Your task to perform on an android device: View the shopping cart on amazon.com. Add "dell xps" to the cart on amazon.com Image 0: 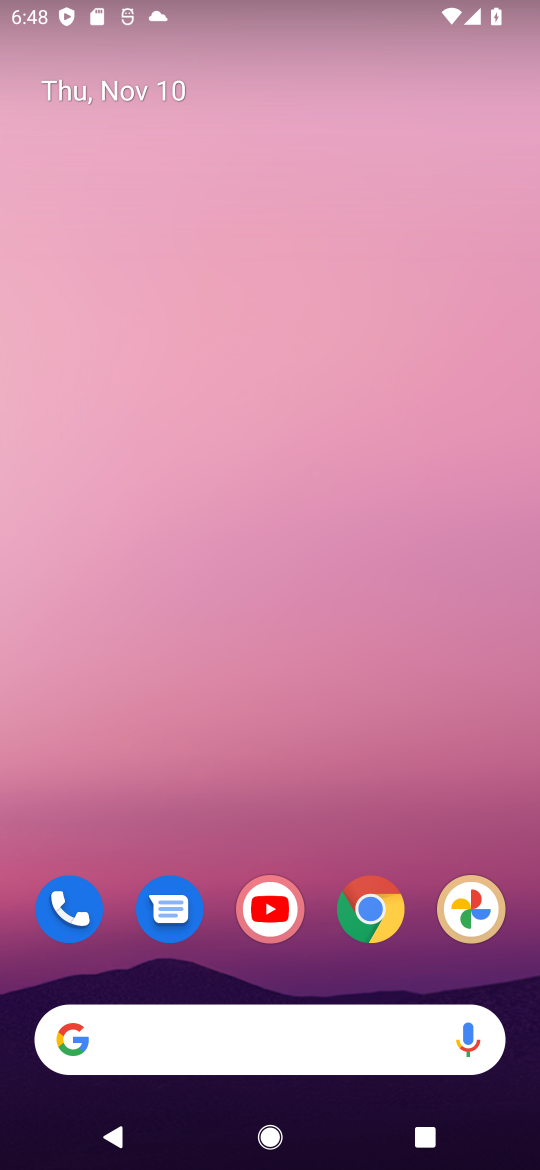
Step 0: drag from (254, 986) to (237, 60)
Your task to perform on an android device: View the shopping cart on amazon.com. Add "dell xps" to the cart on amazon.com Image 1: 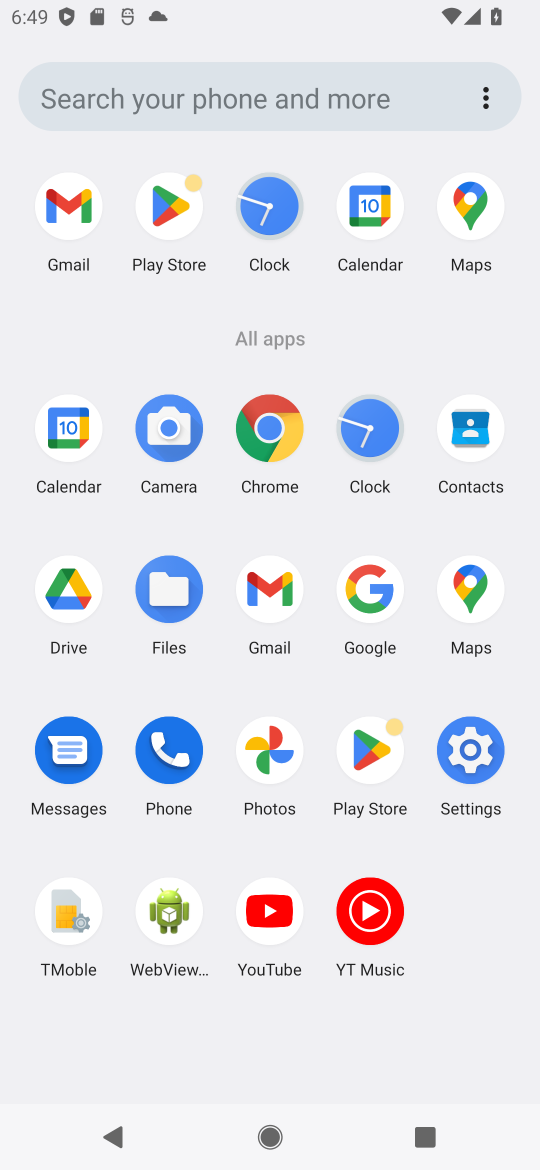
Step 1: click (351, 570)
Your task to perform on an android device: View the shopping cart on amazon.com. Add "dell xps" to the cart on amazon.com Image 2: 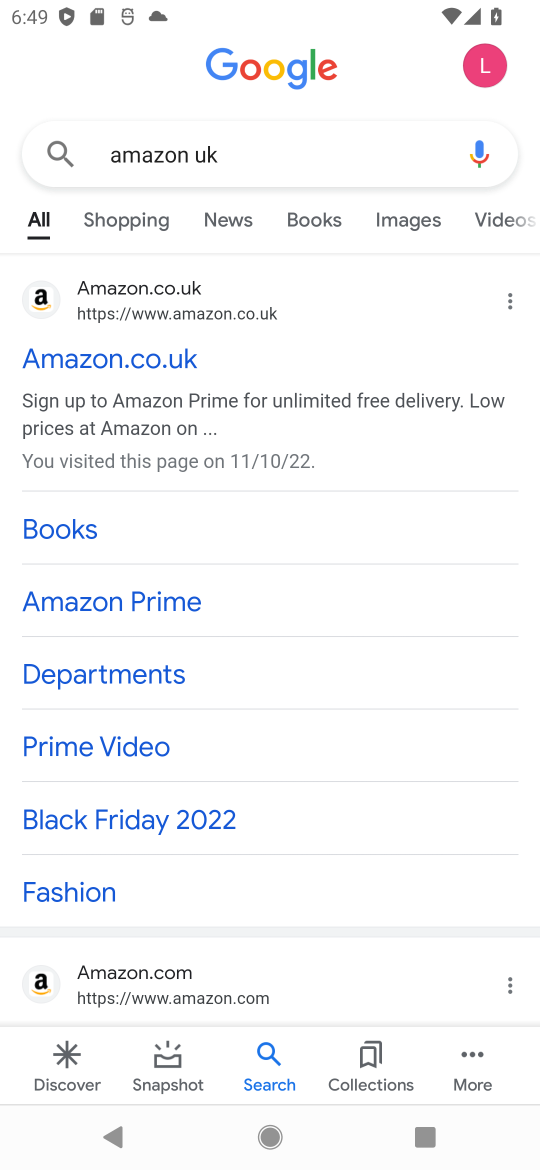
Step 2: click (38, 287)
Your task to perform on an android device: View the shopping cart on amazon.com. Add "dell xps" to the cart on amazon.com Image 3: 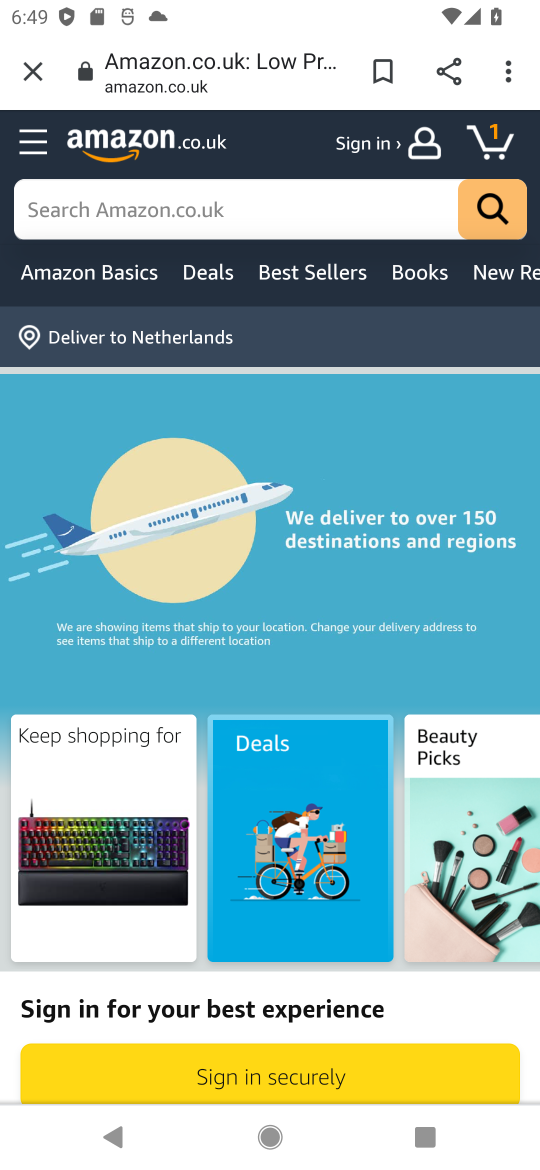
Step 3: click (230, 200)
Your task to perform on an android device: View the shopping cart on amazon.com. Add "dell xps" to the cart on amazon.com Image 4: 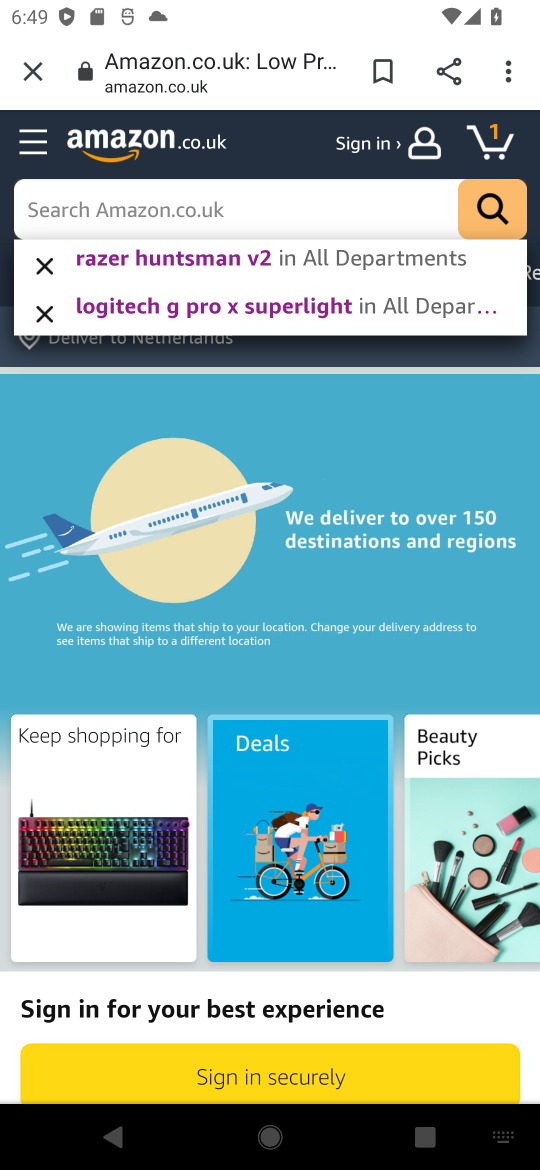
Step 4: click (230, 198)
Your task to perform on an android device: View the shopping cart on amazon.com. Add "dell xps" to the cart on amazon.com Image 5: 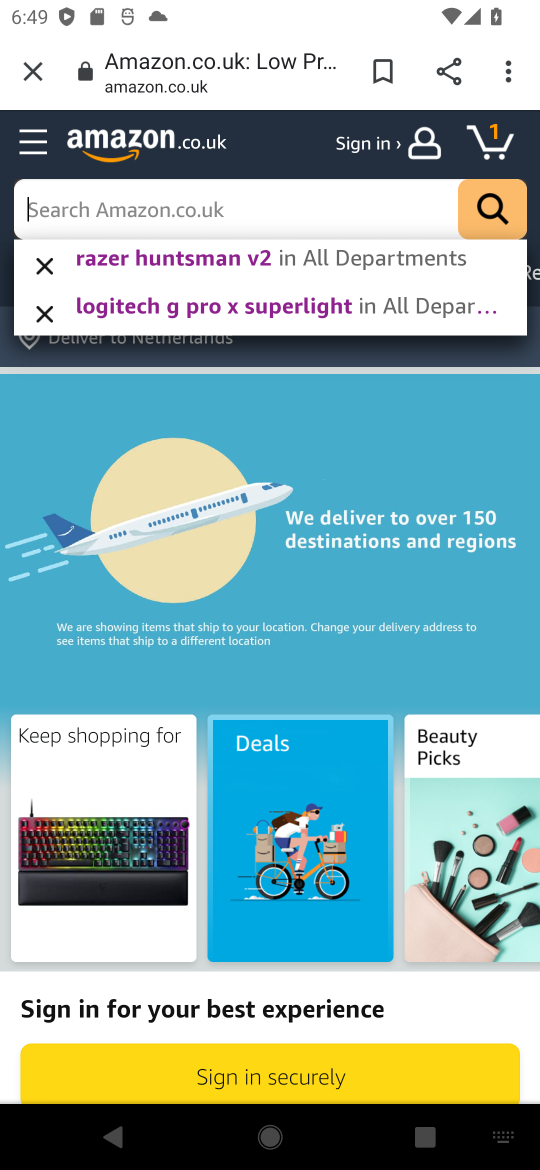
Step 5: type "dell xps" "
Your task to perform on an android device: View the shopping cart on amazon.com. Add "dell xps" to the cart on amazon.com Image 6: 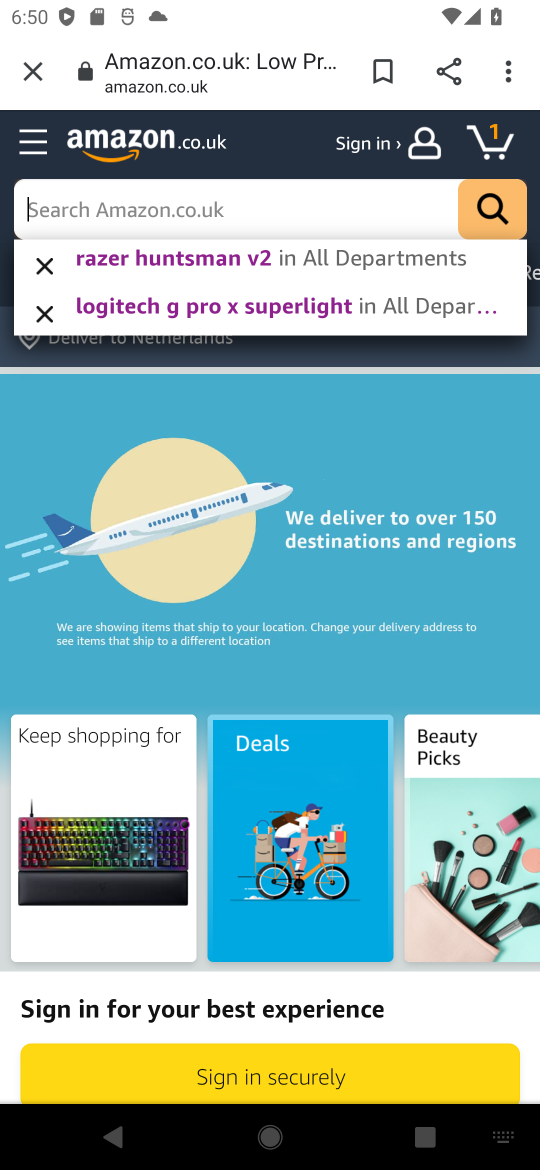
Step 6: click (288, 190)
Your task to perform on an android device: View the shopping cart on amazon.com. Add "dell xps" to the cart on amazon.com Image 7: 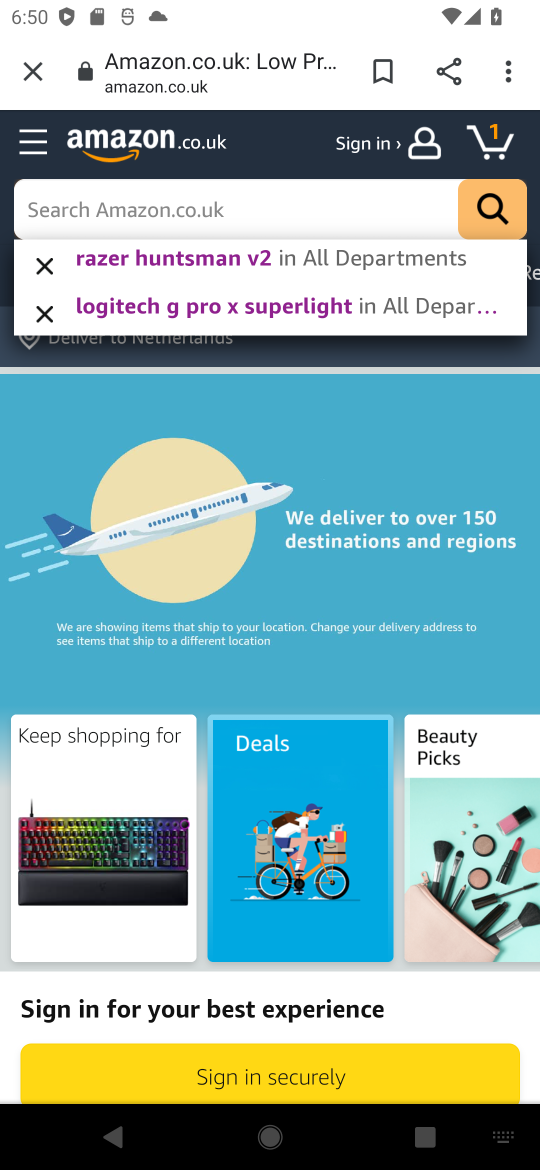
Step 7: type "dell xps" "
Your task to perform on an android device: View the shopping cart on amazon.com. Add "dell xps" to the cart on amazon.com Image 8: 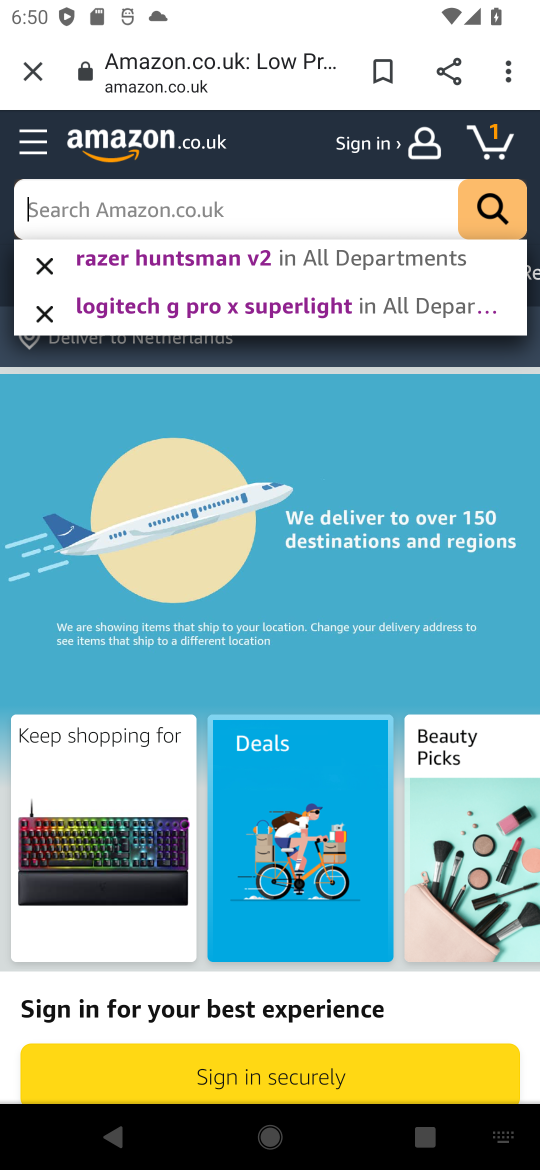
Step 8: click (266, 205)
Your task to perform on an android device: View the shopping cart on amazon.com. Add "dell xps" to the cart on amazon.com Image 9: 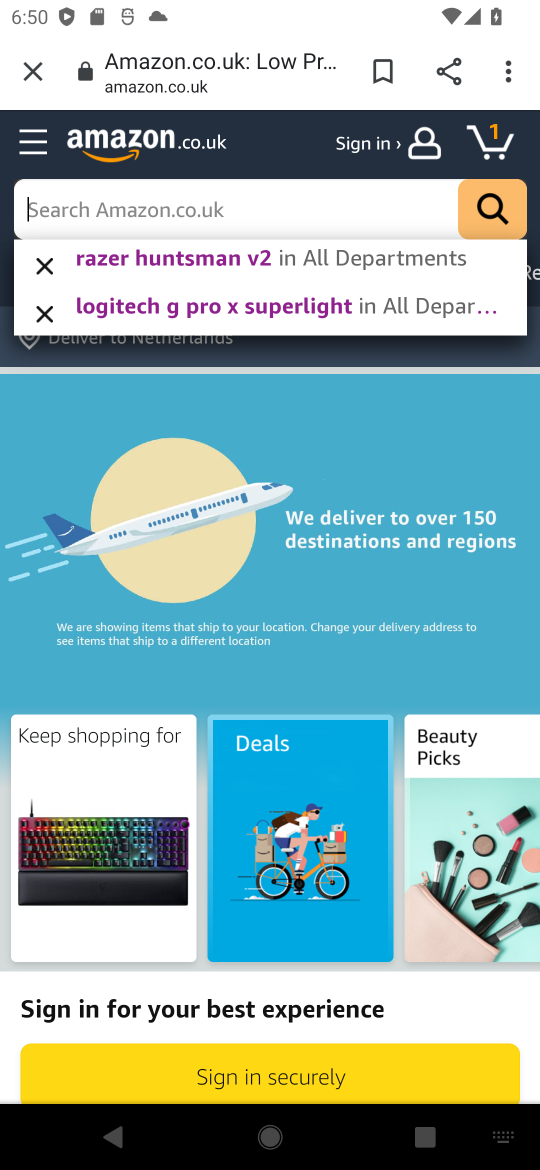
Step 9: click (314, 186)
Your task to perform on an android device: View the shopping cart on amazon.com. Add "dell xps" to the cart on amazon.com Image 10: 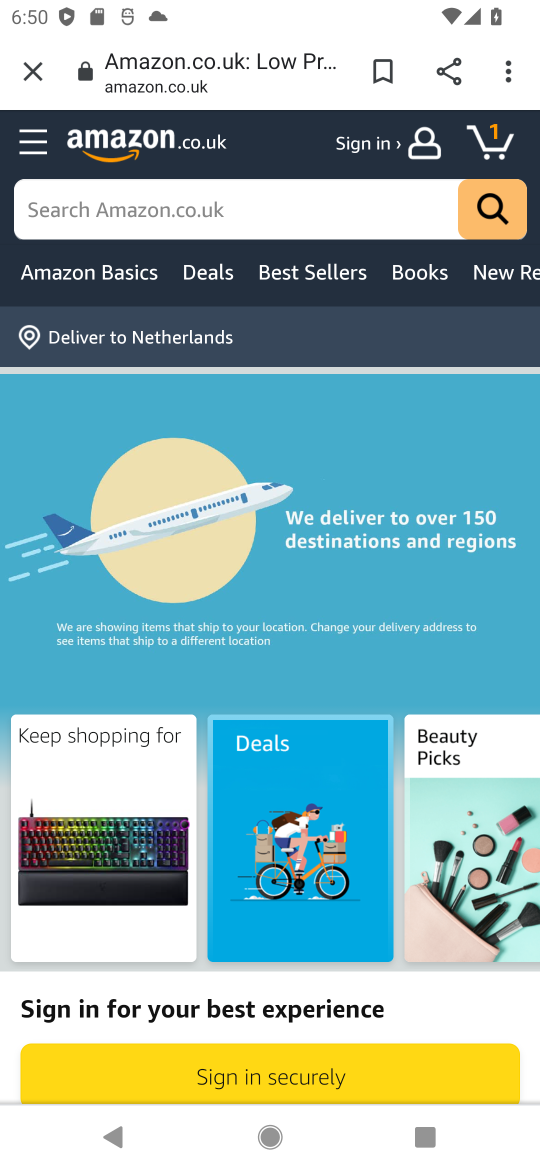
Step 10: type "dell xps "
Your task to perform on an android device: View the shopping cart on amazon.com. Add "dell xps" to the cart on amazon.com Image 11: 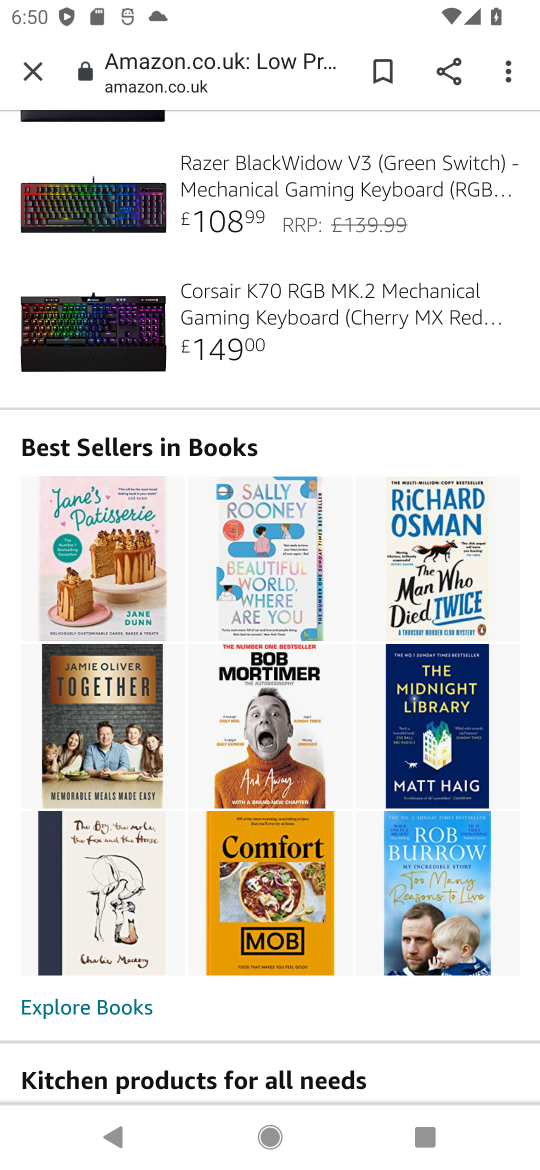
Step 11: drag from (334, 282) to (206, 1027)
Your task to perform on an android device: View the shopping cart on amazon.com. Add "dell xps" to the cart on amazon.com Image 12: 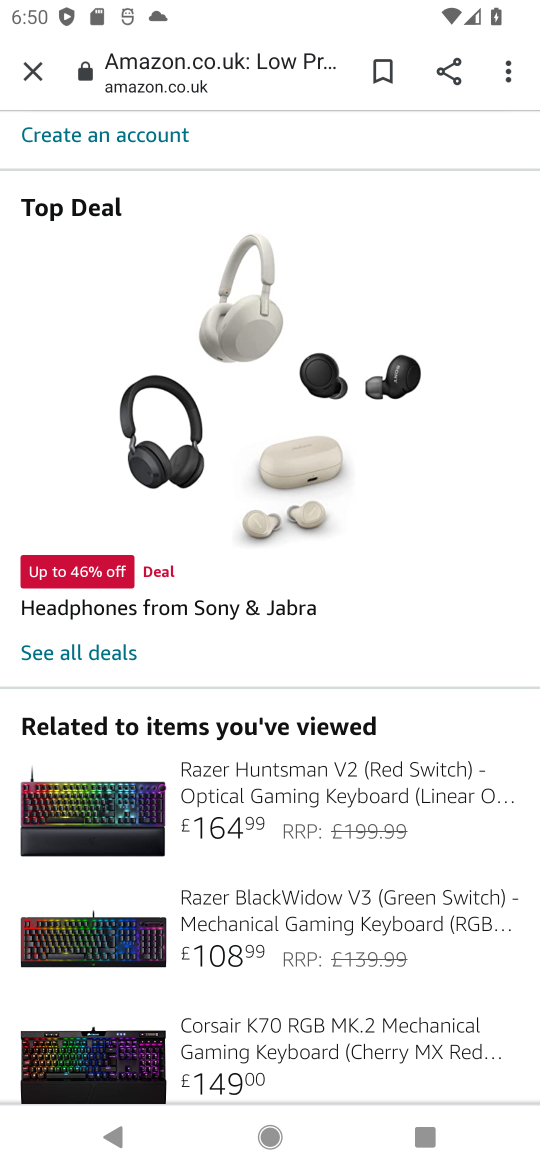
Step 12: drag from (327, 249) to (285, 865)
Your task to perform on an android device: View the shopping cart on amazon.com. Add "dell xps" to the cart on amazon.com Image 13: 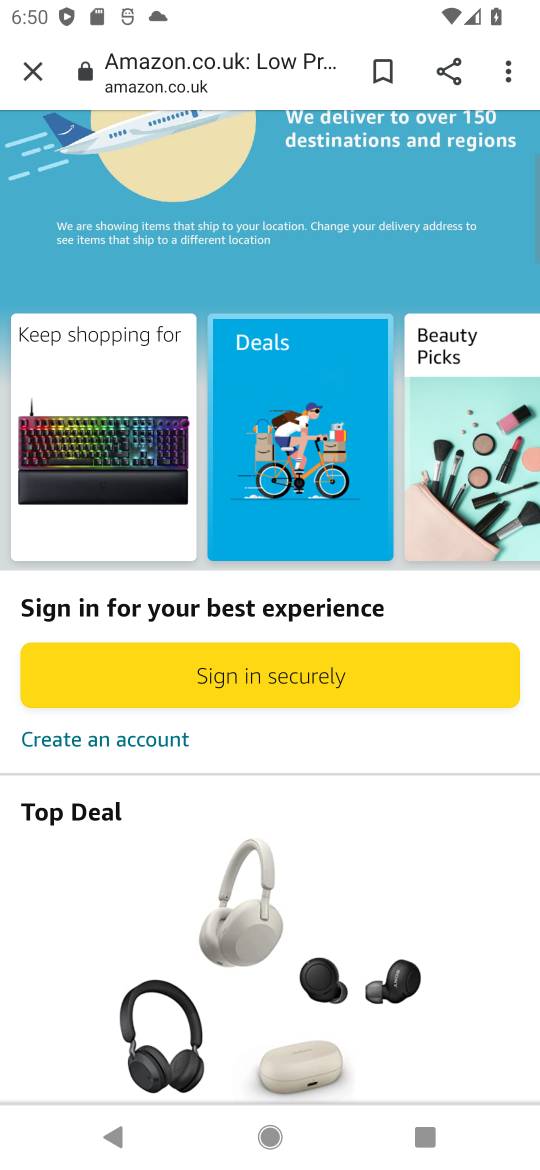
Step 13: drag from (275, 536) to (299, 1107)
Your task to perform on an android device: View the shopping cart on amazon.com. Add "dell xps" to the cart on amazon.com Image 14: 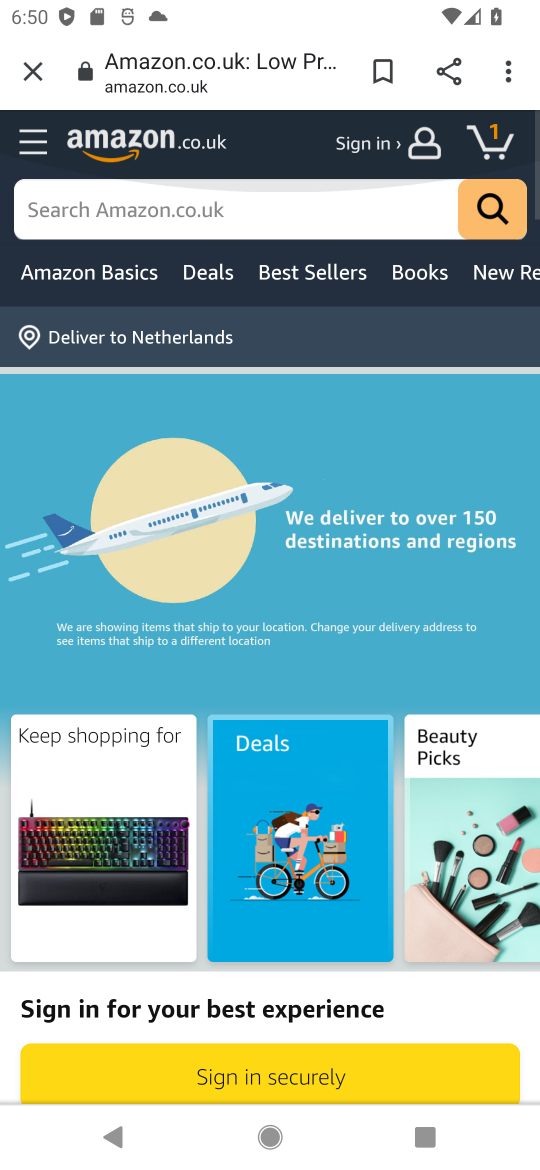
Step 14: drag from (204, 267) to (219, 786)
Your task to perform on an android device: View the shopping cart on amazon.com. Add "dell xps" to the cart on amazon.com Image 15: 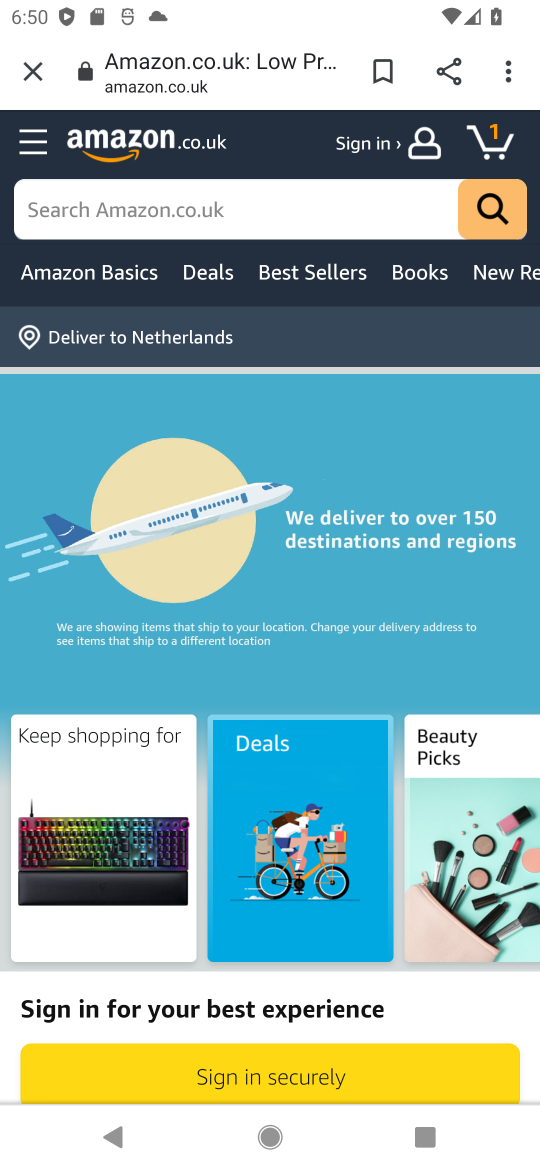
Step 15: press back button
Your task to perform on an android device: View the shopping cart on amazon.com. Add "dell xps" to the cart on amazon.com Image 16: 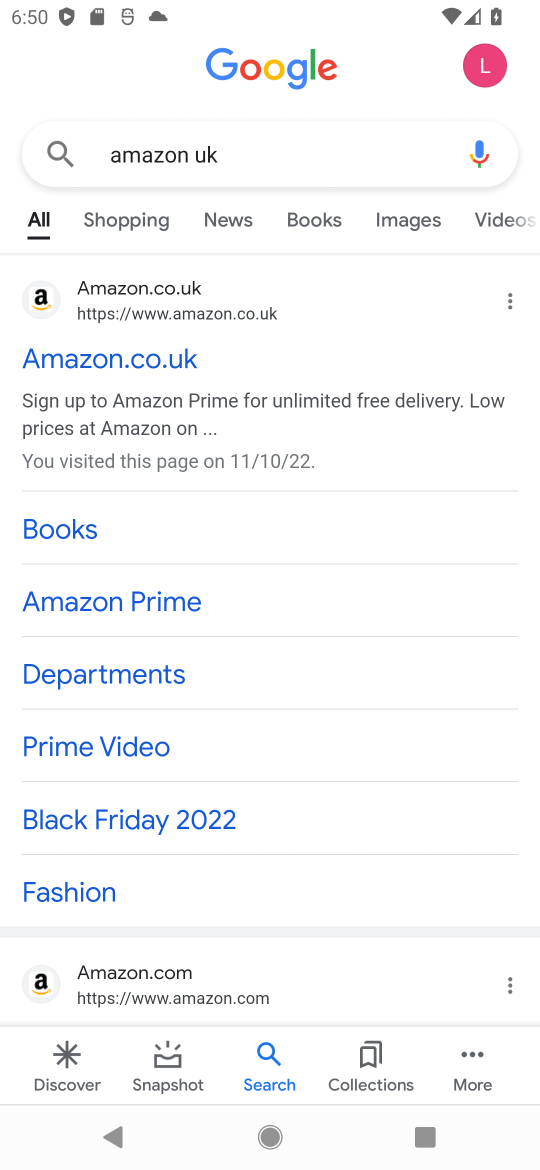
Step 16: click (34, 302)
Your task to perform on an android device: View the shopping cart on amazon.com. Add "dell xps" to the cart on amazon.com Image 17: 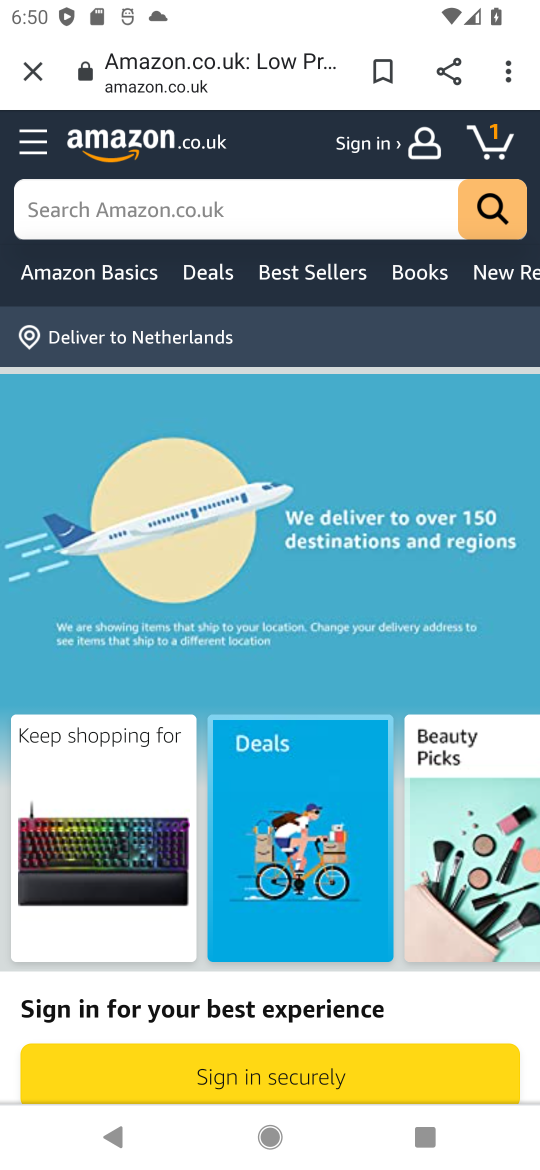
Step 17: click (171, 190)
Your task to perform on an android device: View the shopping cart on amazon.com. Add "dell xps" to the cart on amazon.com Image 18: 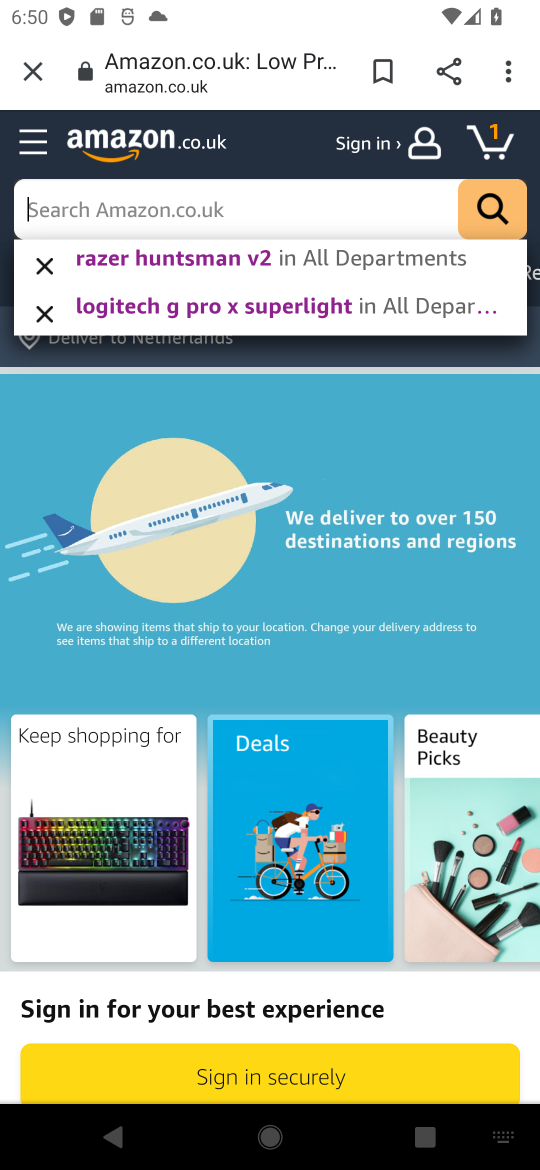
Step 18: click (178, 196)
Your task to perform on an android device: View the shopping cart on amazon.com. Add "dell xps" to the cart on amazon.com Image 19: 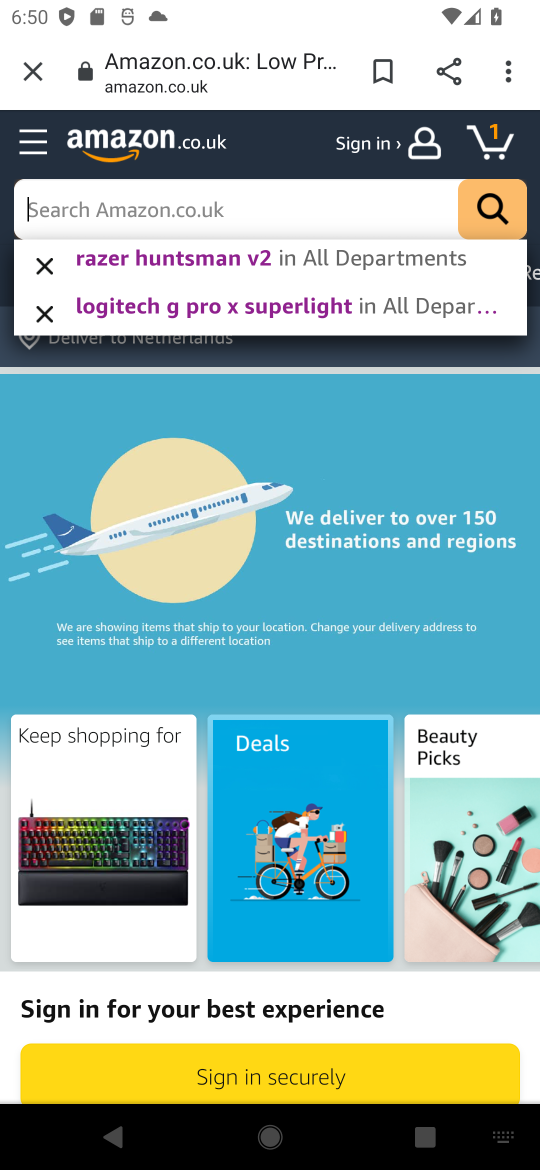
Step 19: type "dell "
Your task to perform on an android device: View the shopping cart on amazon.com. Add "dell xps" to the cart on amazon.com Image 20: 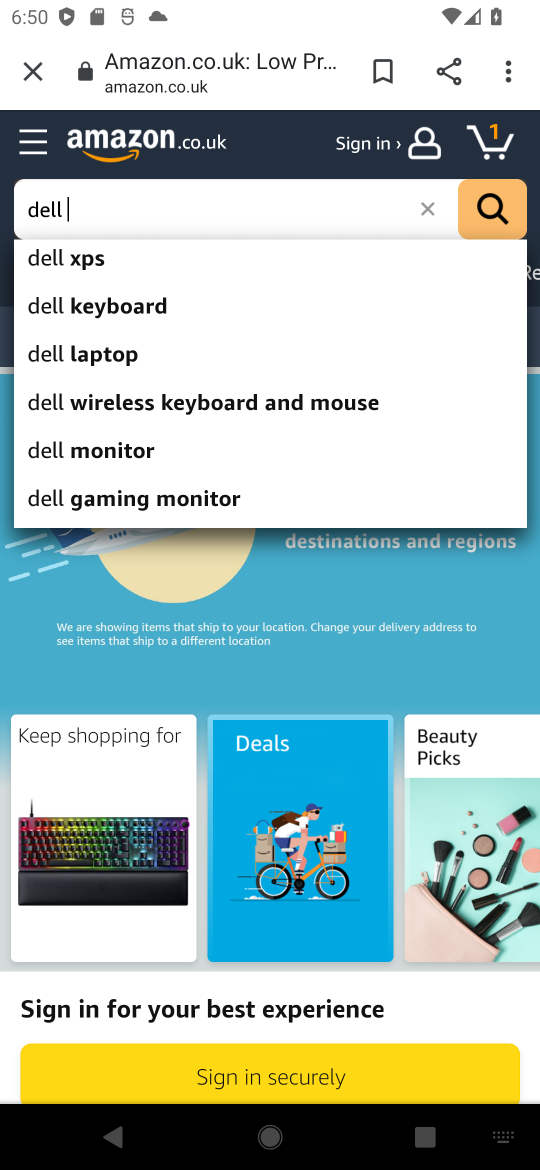
Step 20: click (83, 256)
Your task to perform on an android device: View the shopping cart on amazon.com. Add "dell xps" to the cart on amazon.com Image 21: 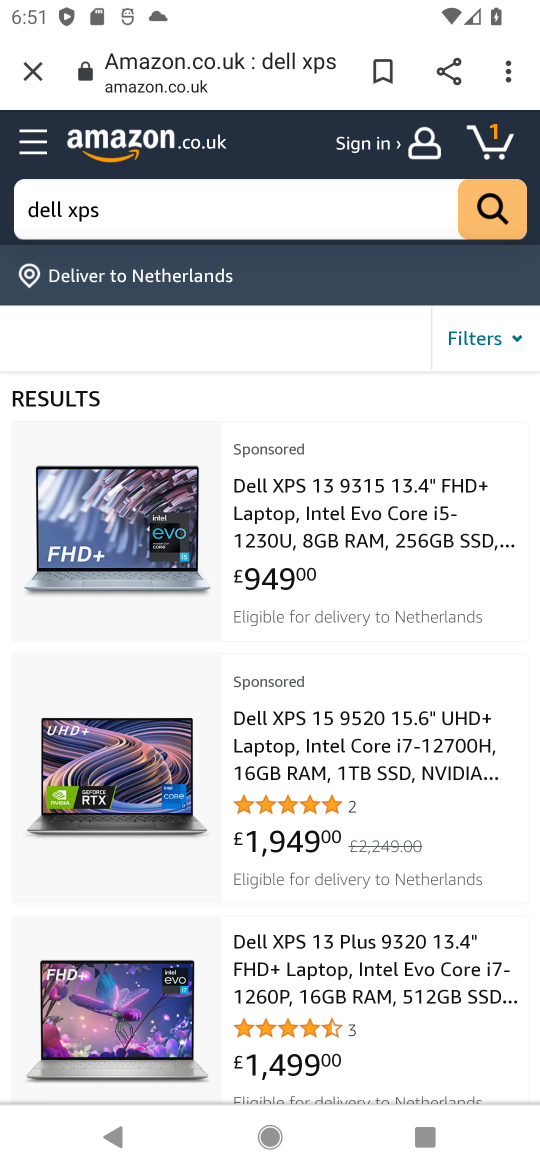
Step 21: click (364, 494)
Your task to perform on an android device: View the shopping cart on amazon.com. Add "dell xps" to the cart on amazon.com Image 22: 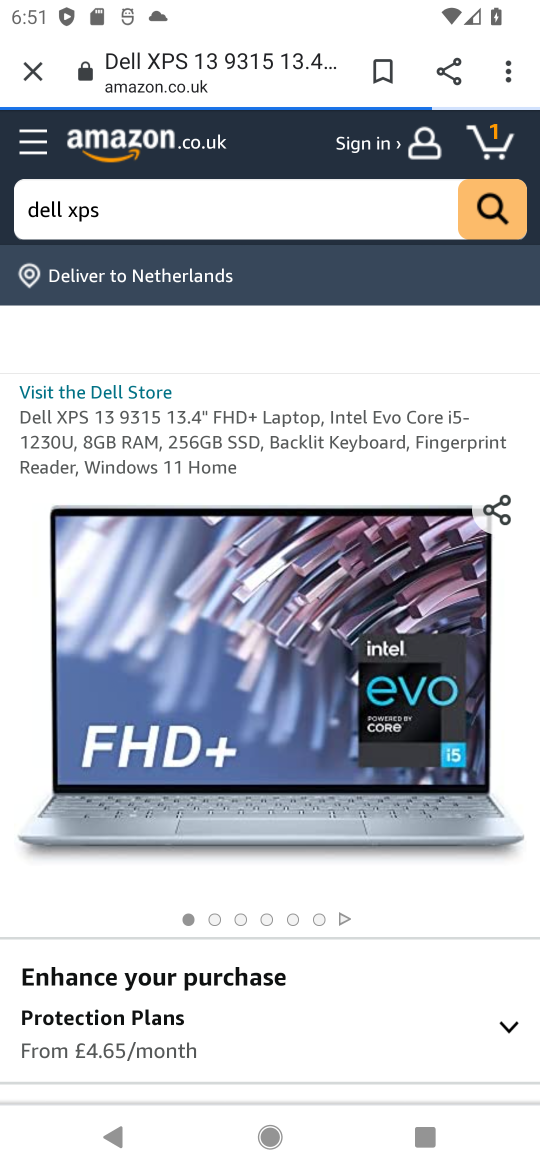
Step 22: drag from (366, 891) to (361, 473)
Your task to perform on an android device: View the shopping cart on amazon.com. Add "dell xps" to the cart on amazon.com Image 23: 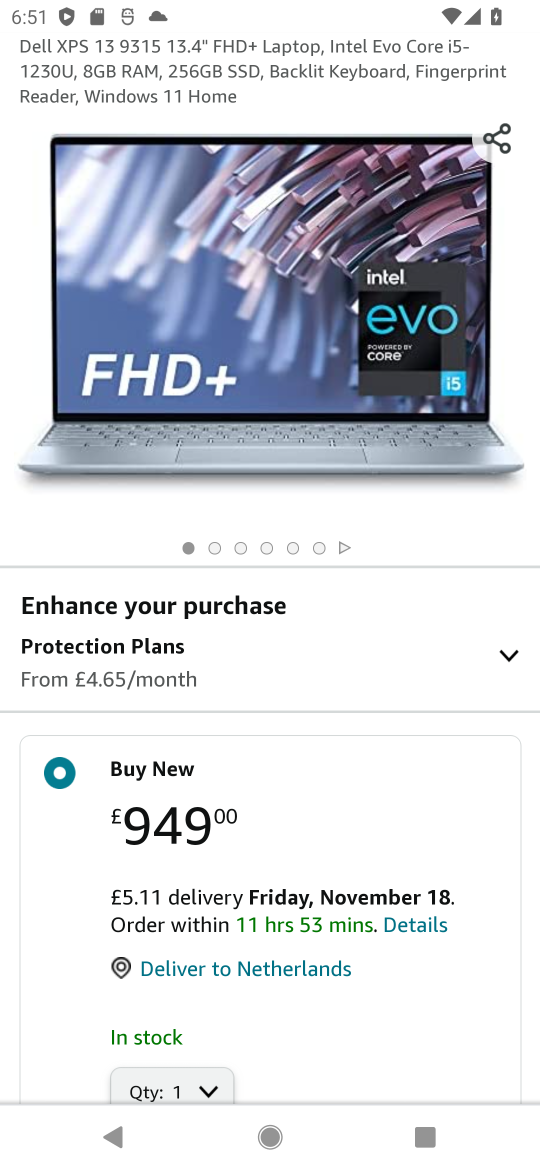
Step 23: drag from (336, 1011) to (350, 195)
Your task to perform on an android device: View the shopping cart on amazon.com. Add "dell xps" to the cart on amazon.com Image 24: 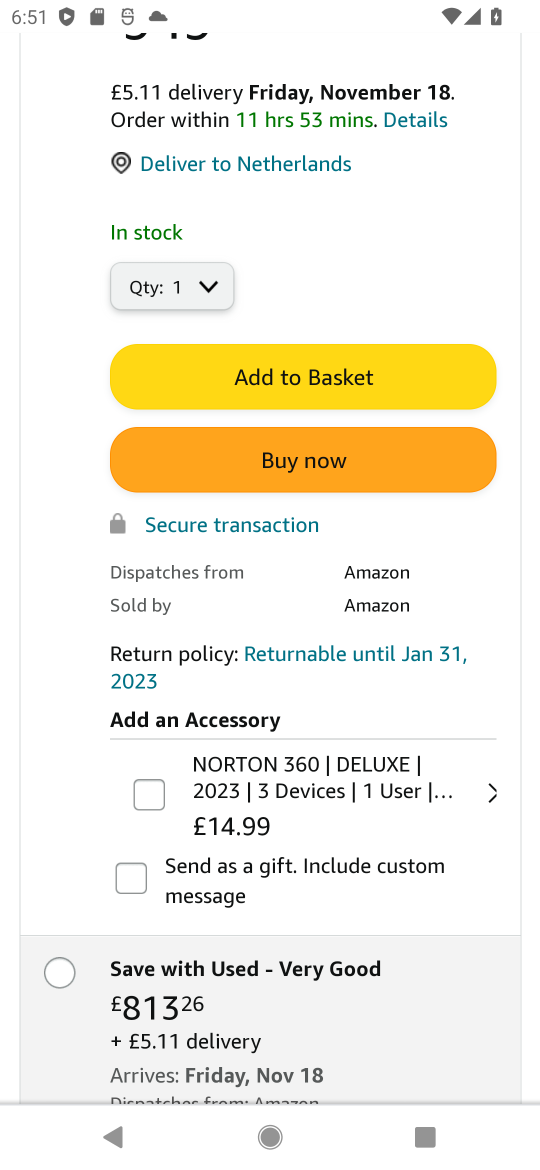
Step 24: click (347, 364)
Your task to perform on an android device: View the shopping cart on amazon.com. Add "dell xps" to the cart on amazon.com Image 25: 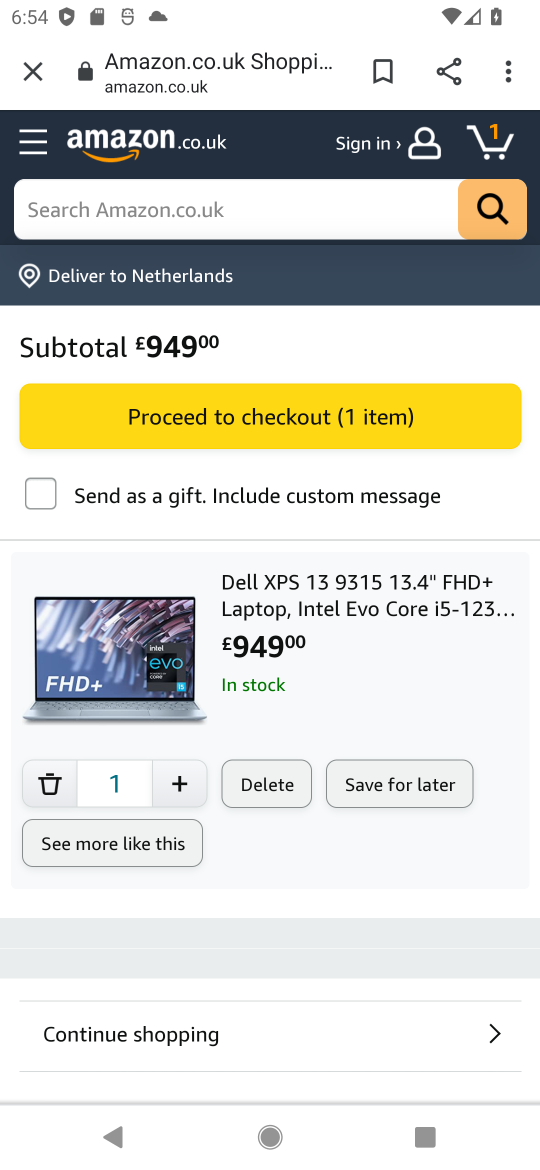
Step 25: task complete